Your task to perform on an android device: What's the price of the LG TV? Image 0: 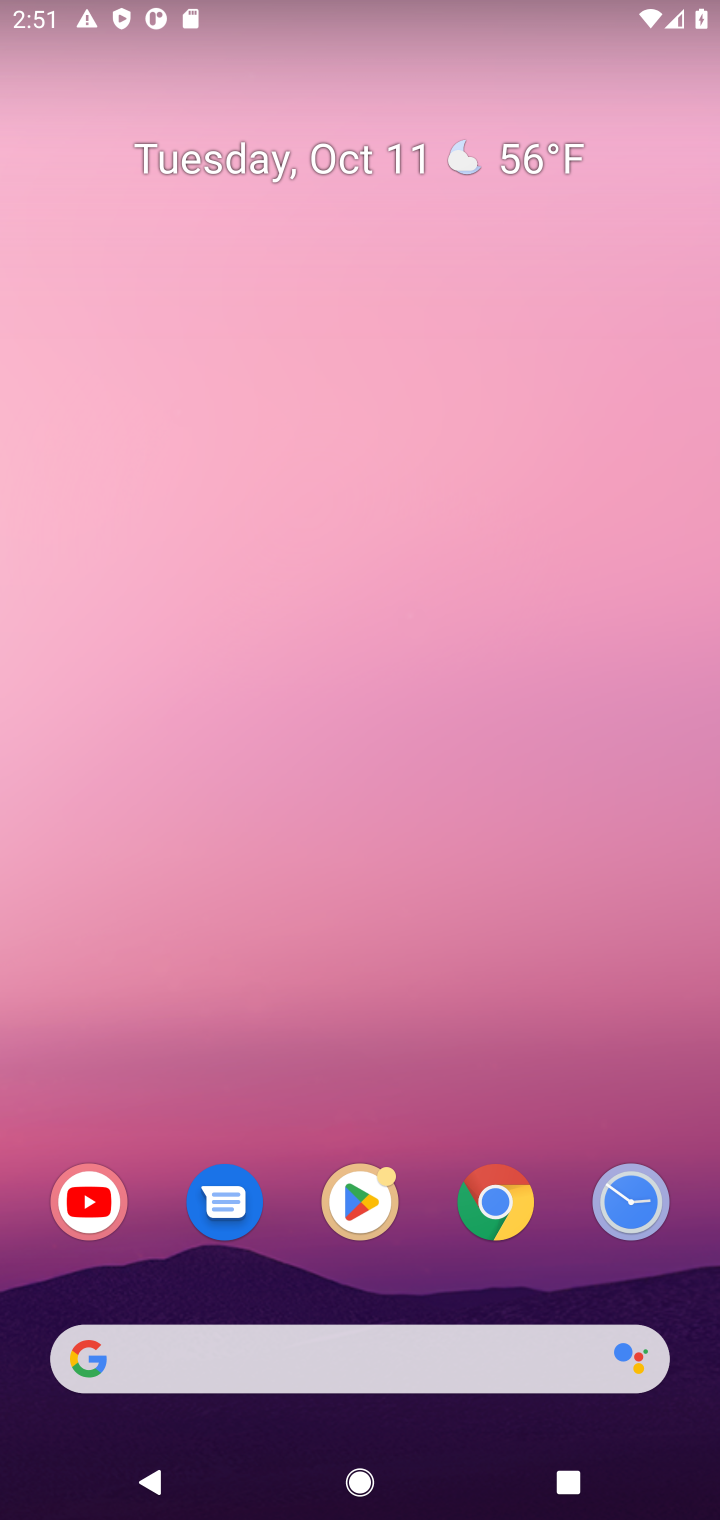
Step 0: click (506, 1204)
Your task to perform on an android device: What's the price of the LG TV? Image 1: 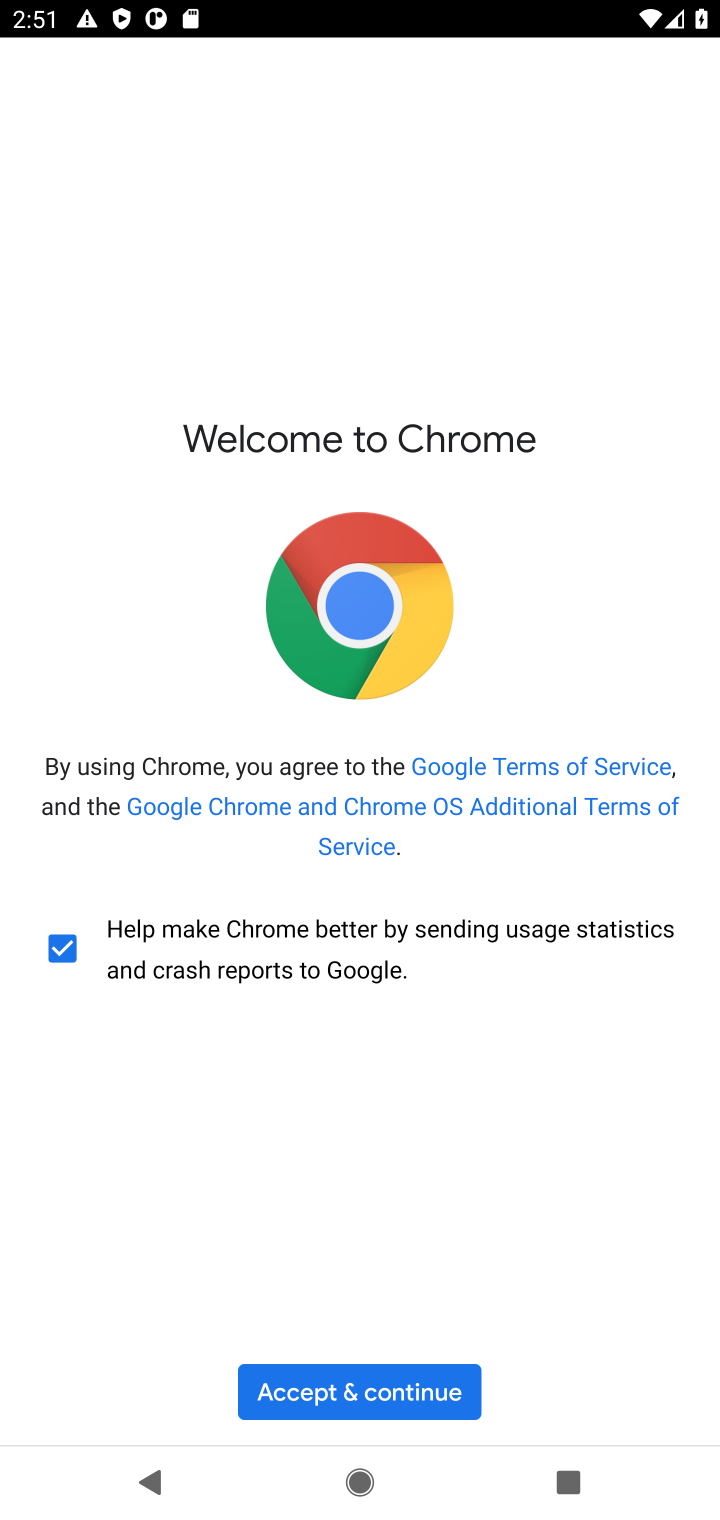
Step 1: click (389, 1369)
Your task to perform on an android device: What's the price of the LG TV? Image 2: 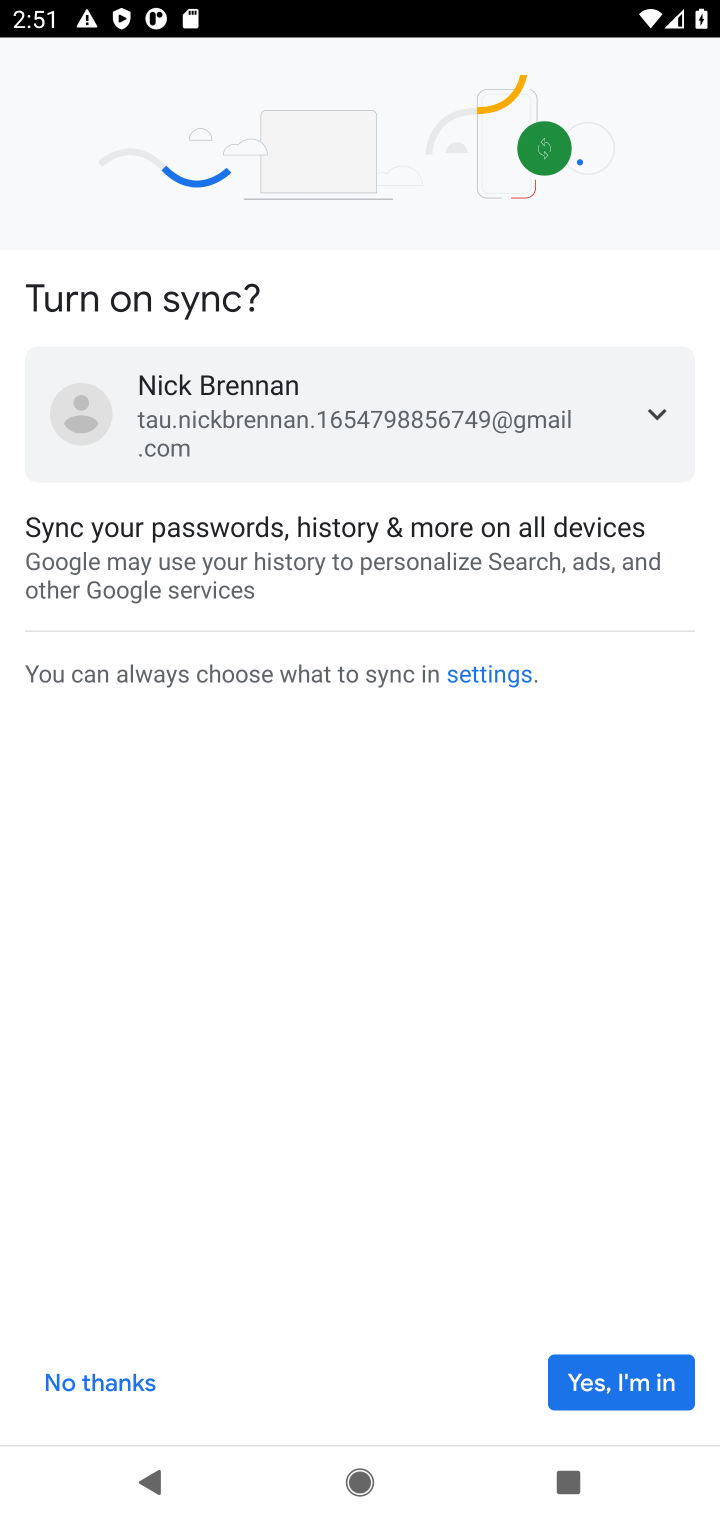
Step 2: click (589, 1368)
Your task to perform on an android device: What's the price of the LG TV? Image 3: 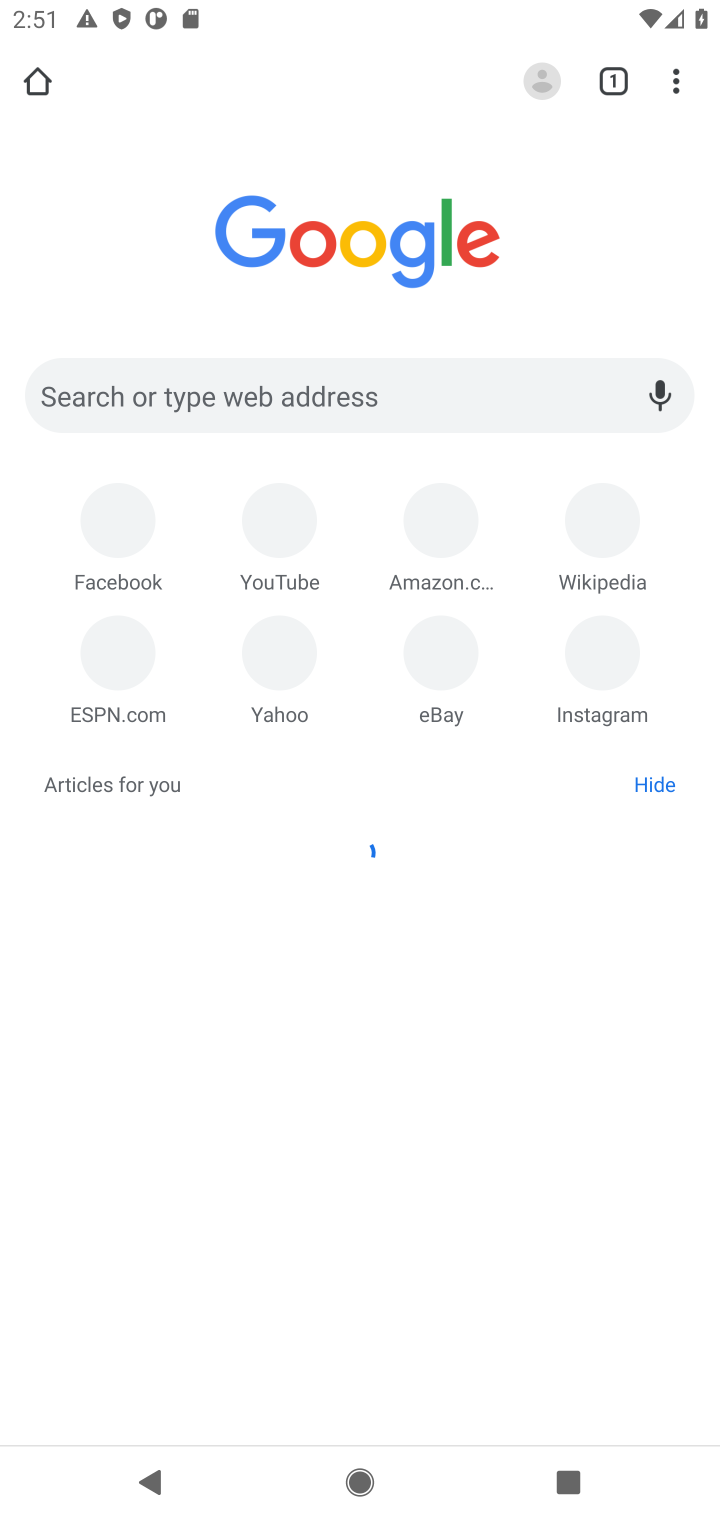
Step 3: click (364, 382)
Your task to perform on an android device: What's the price of the LG TV? Image 4: 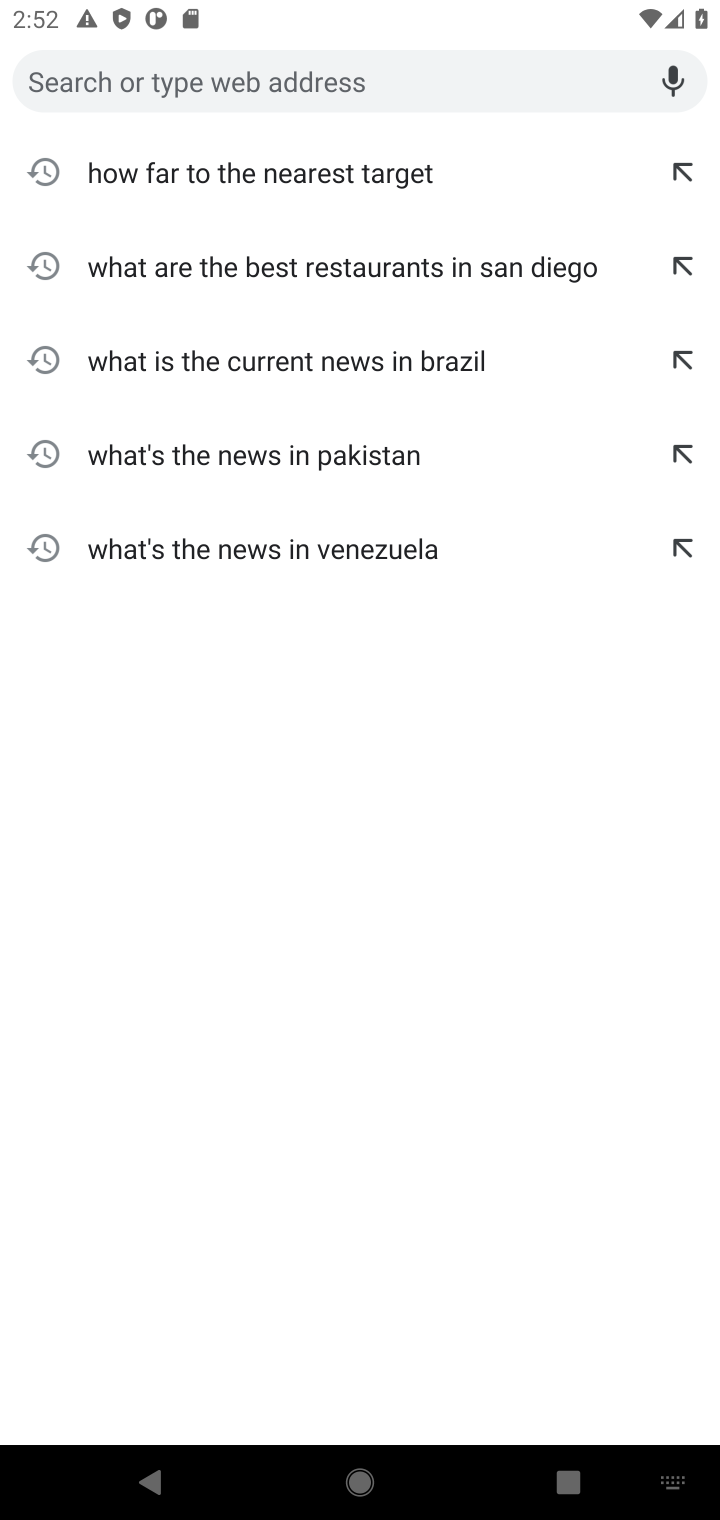
Step 4: type "What's the price of the LG TV?"
Your task to perform on an android device: What's the price of the LG TV? Image 5: 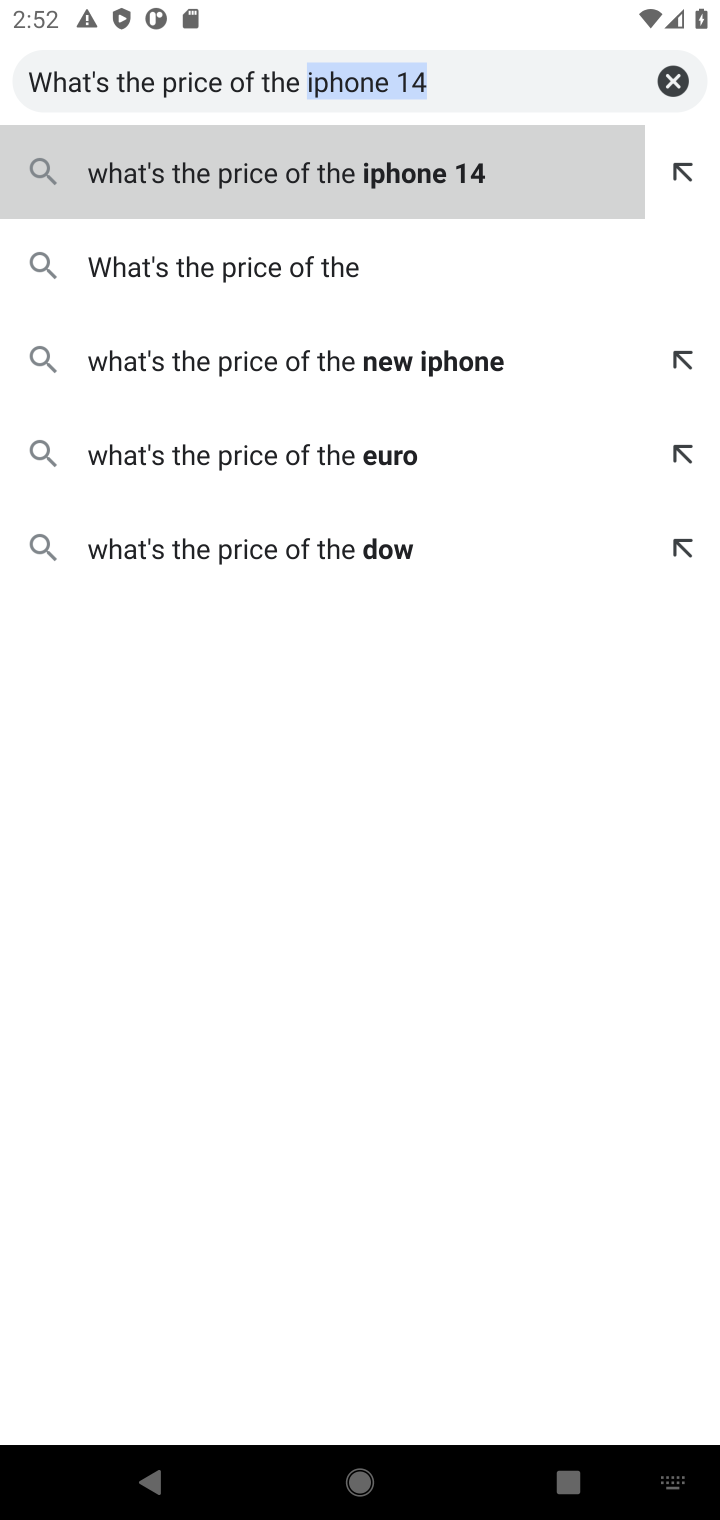
Step 5: type ""
Your task to perform on an android device: What's the price of the LG TV? Image 6: 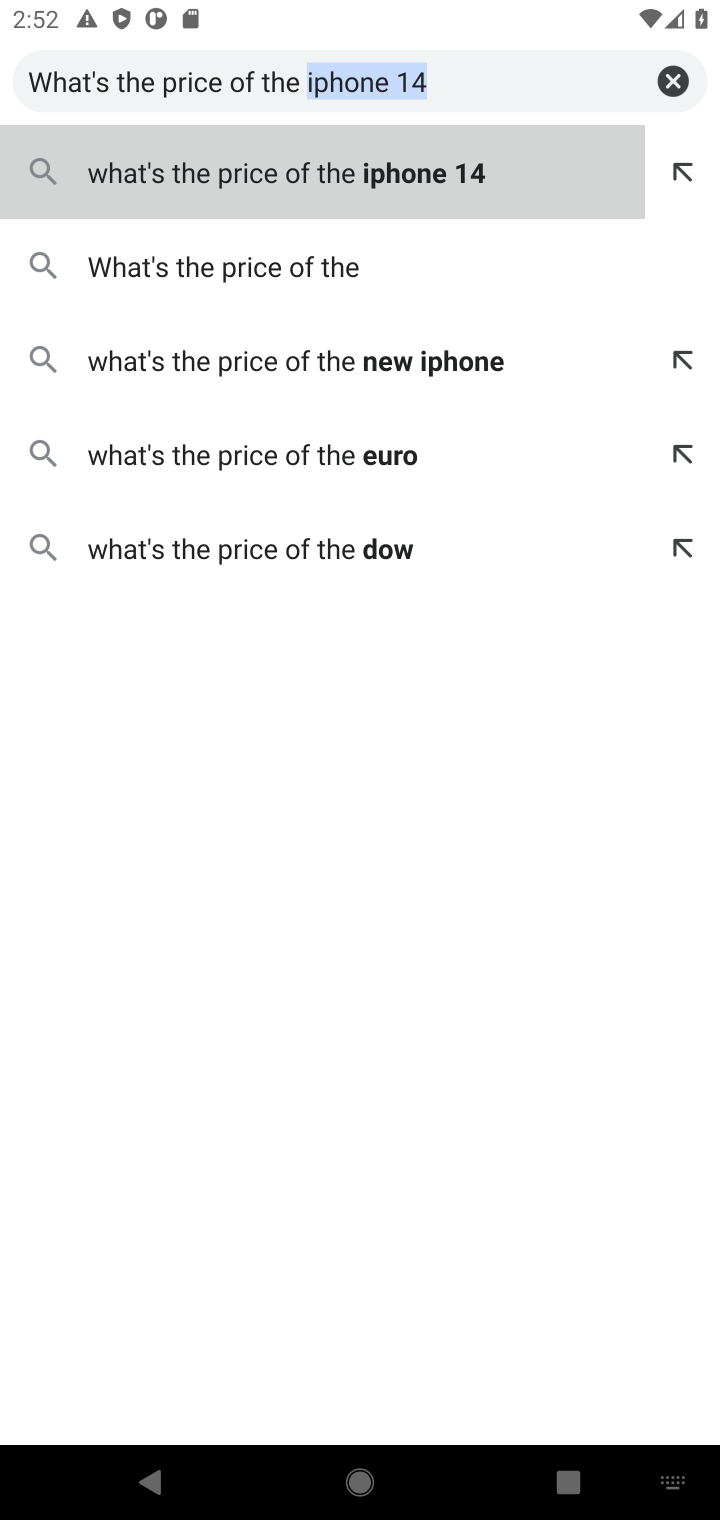
Step 6: click (671, 85)
Your task to perform on an android device: What's the price of the LG TV? Image 7: 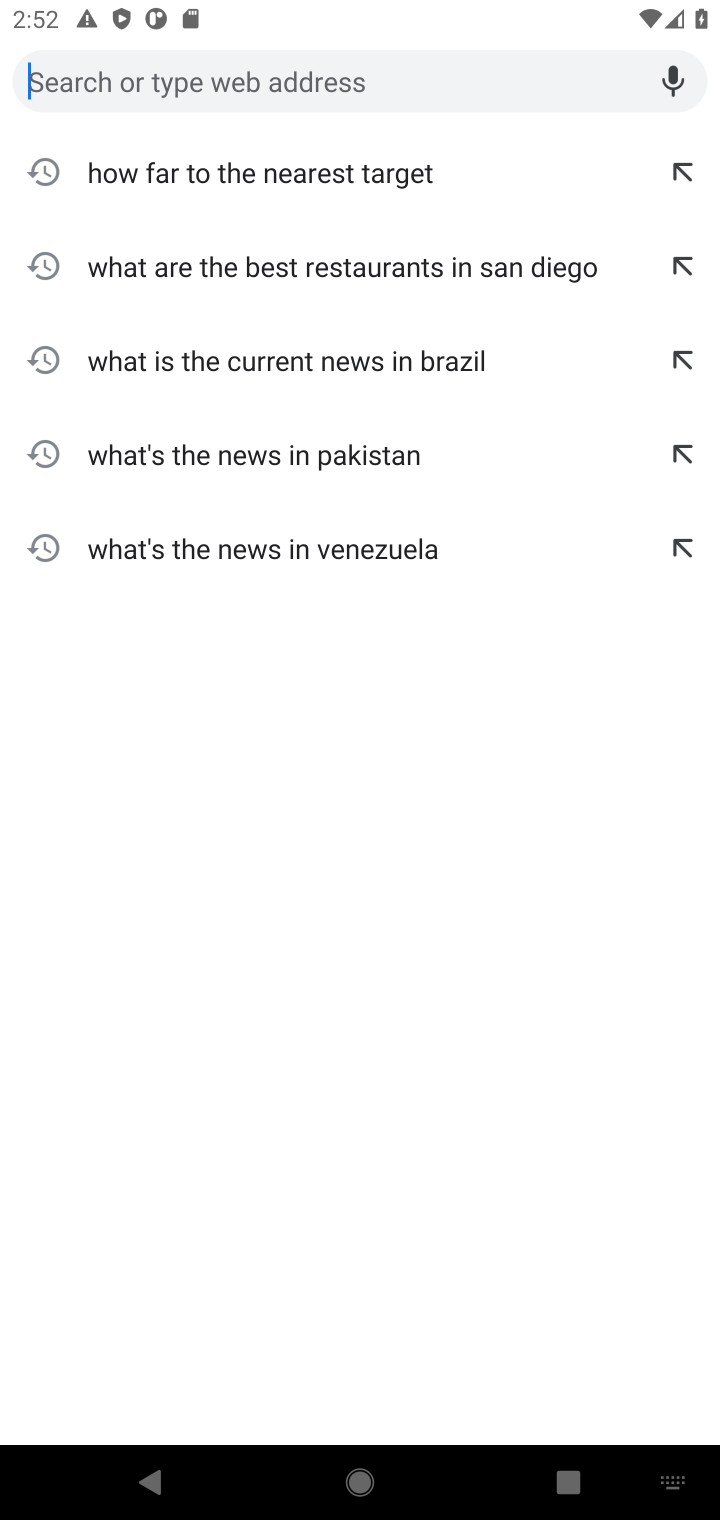
Step 7: type "What's the price of the LG TV?"
Your task to perform on an android device: What's the price of the LG TV? Image 8: 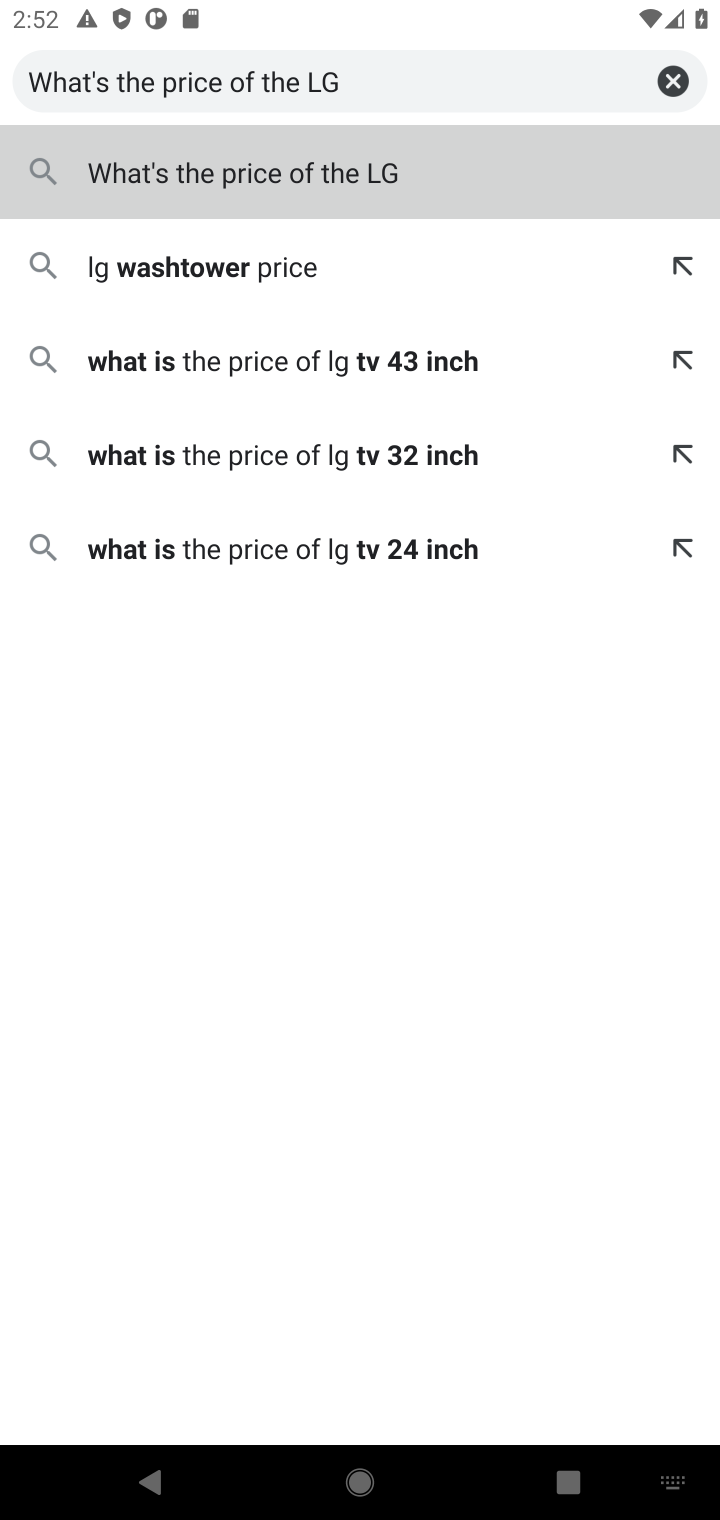
Step 8: type ""
Your task to perform on an android device: What's the price of the LG TV? Image 9: 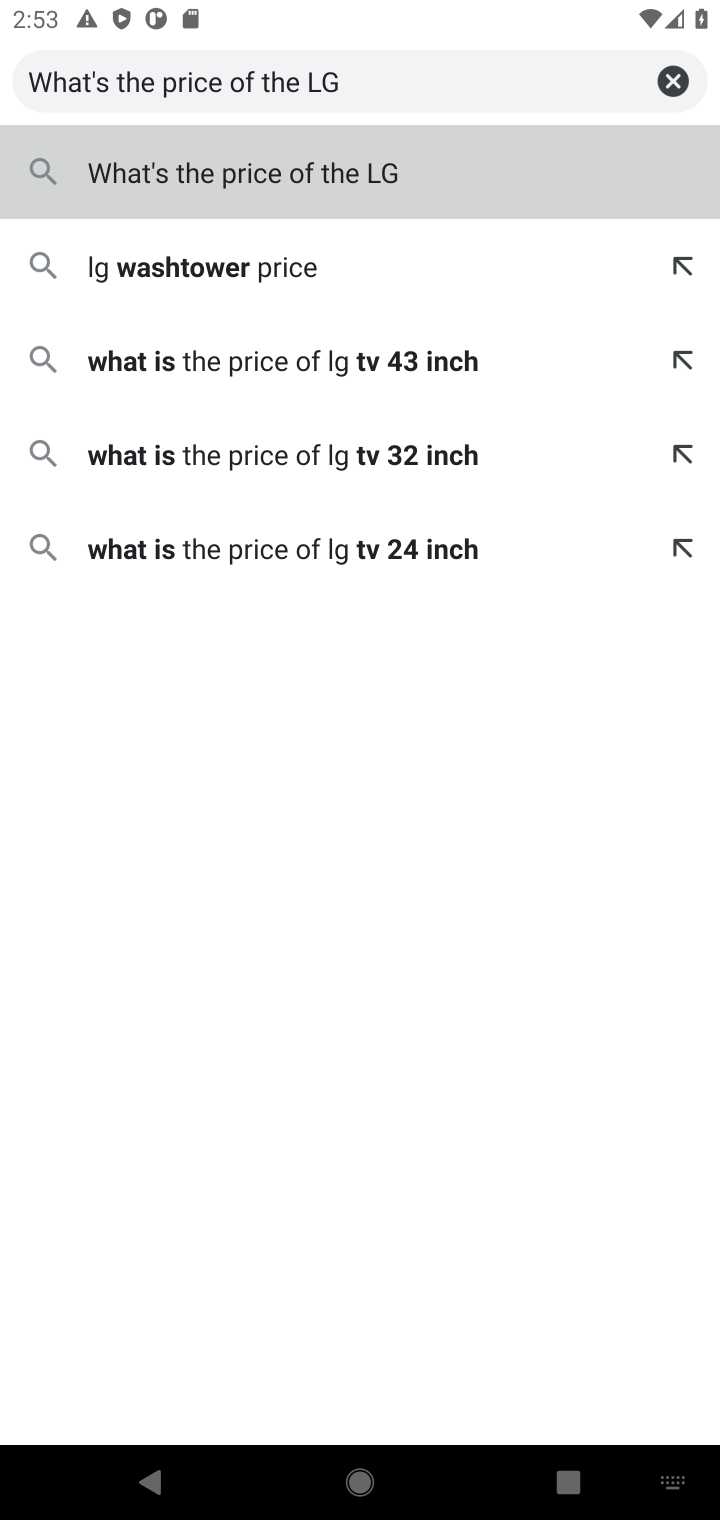
Step 9: press enter
Your task to perform on an android device: What's the price of the LG TV? Image 10: 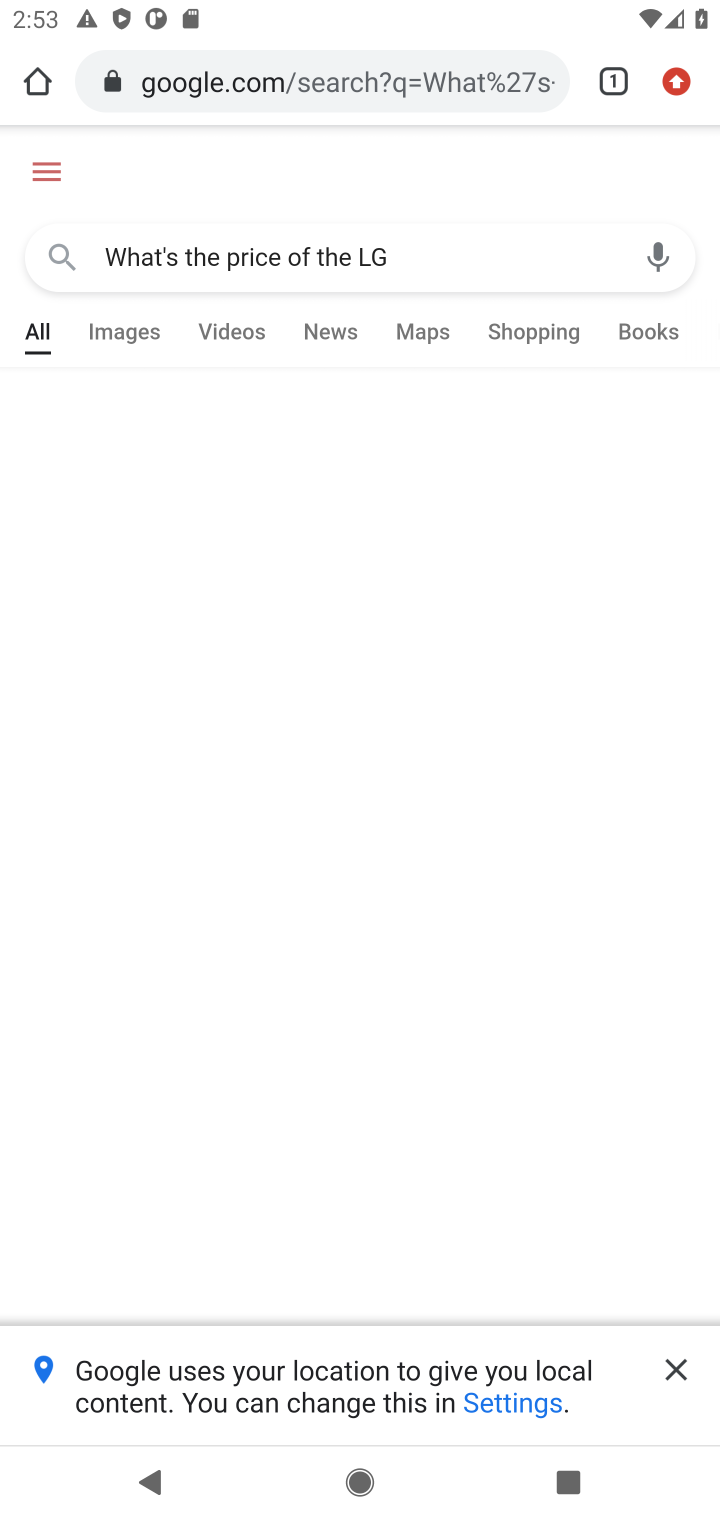
Step 10: click (687, 1375)
Your task to perform on an android device: What's the price of the LG TV? Image 11: 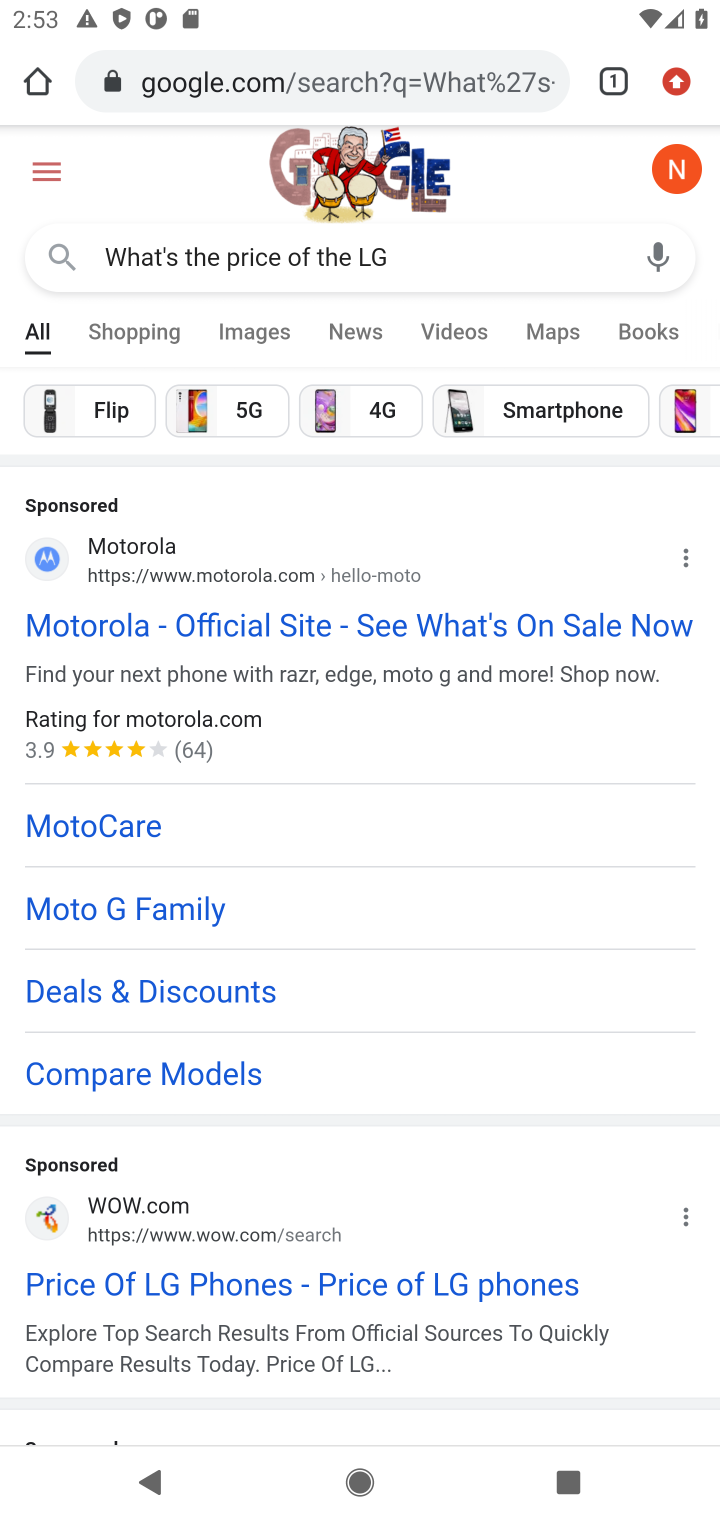
Step 11: drag from (249, 1186) to (308, 456)
Your task to perform on an android device: What's the price of the LG TV? Image 12: 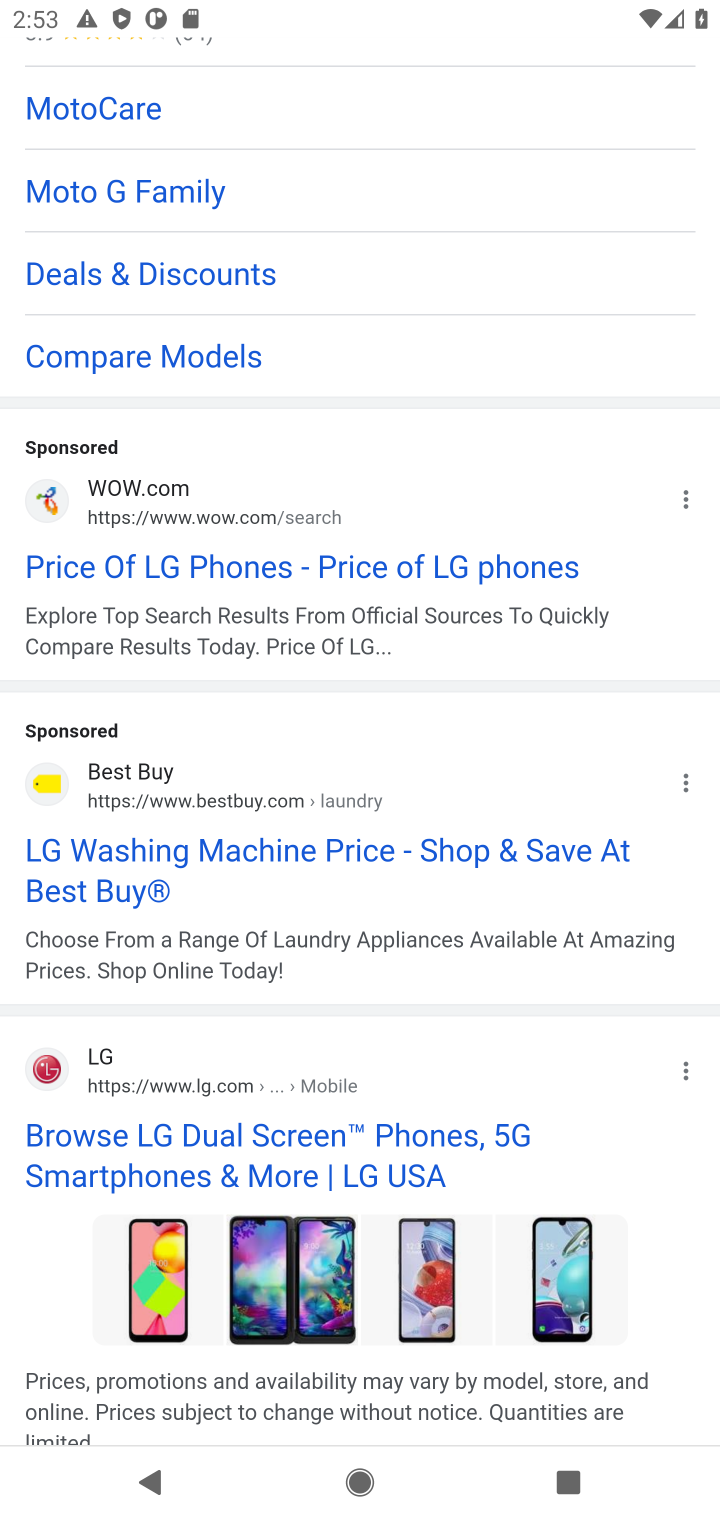
Step 12: drag from (413, 844) to (416, 457)
Your task to perform on an android device: What's the price of the LG TV? Image 13: 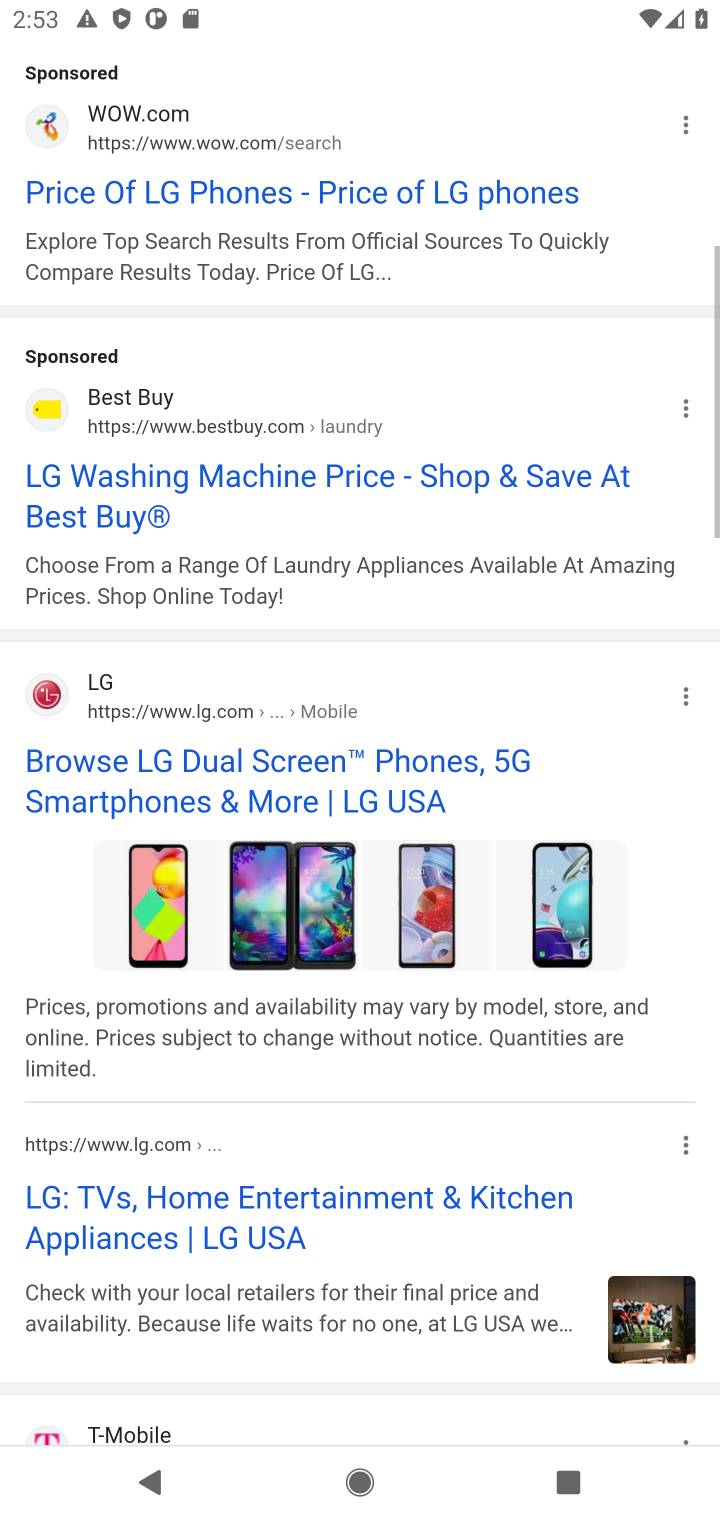
Step 13: drag from (398, 156) to (474, 1158)
Your task to perform on an android device: What's the price of the LG TV? Image 14: 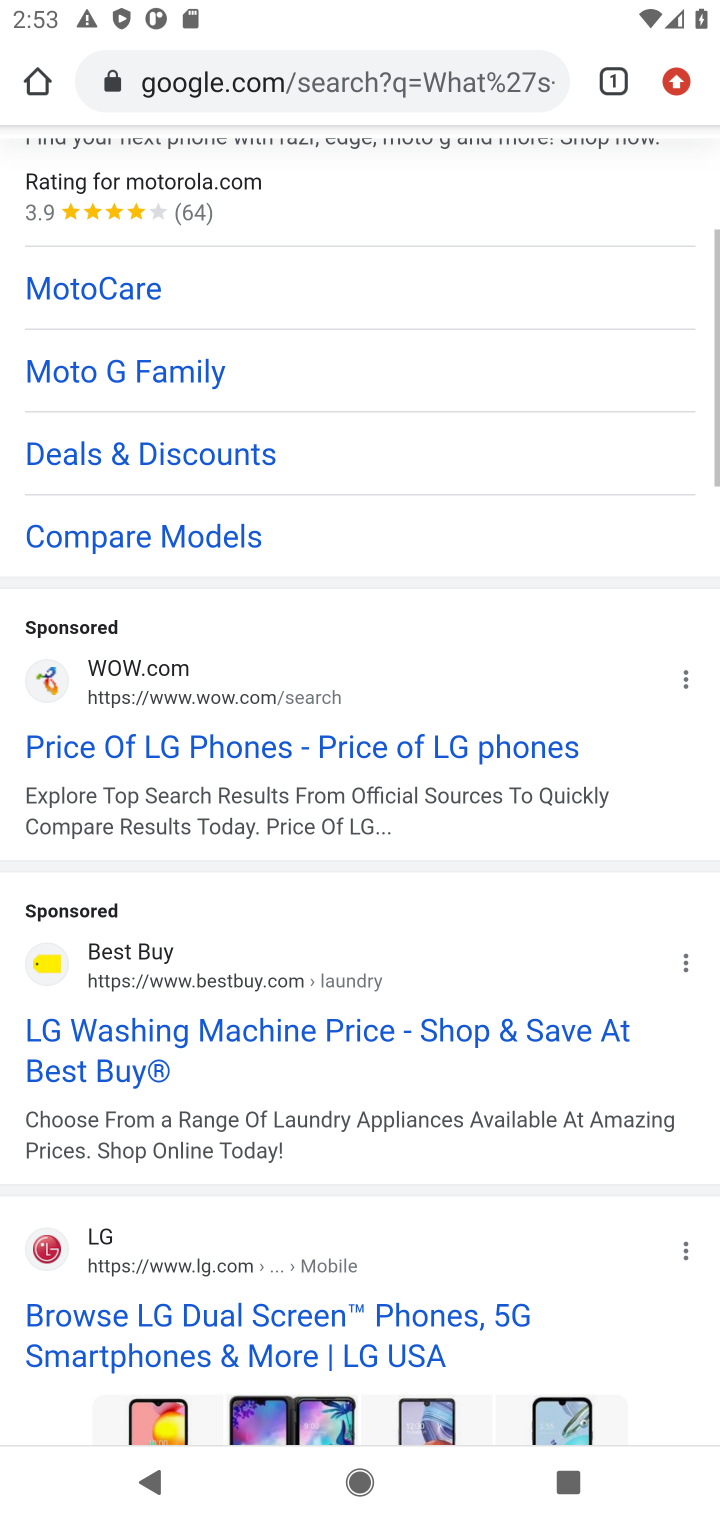
Step 14: click (352, 1220)
Your task to perform on an android device: What's the price of the LG TV? Image 15: 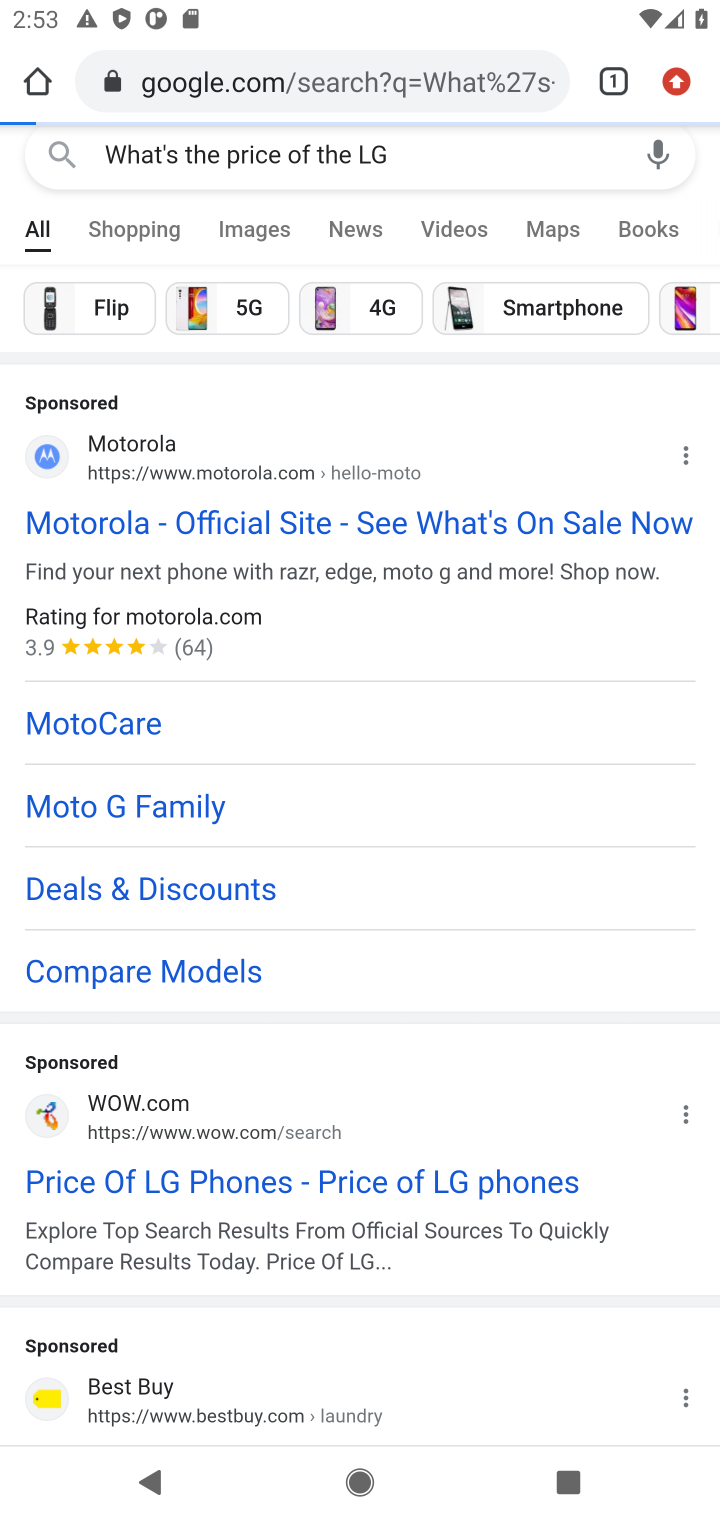
Step 15: drag from (294, 1285) to (387, 487)
Your task to perform on an android device: What's the price of the LG TV? Image 16: 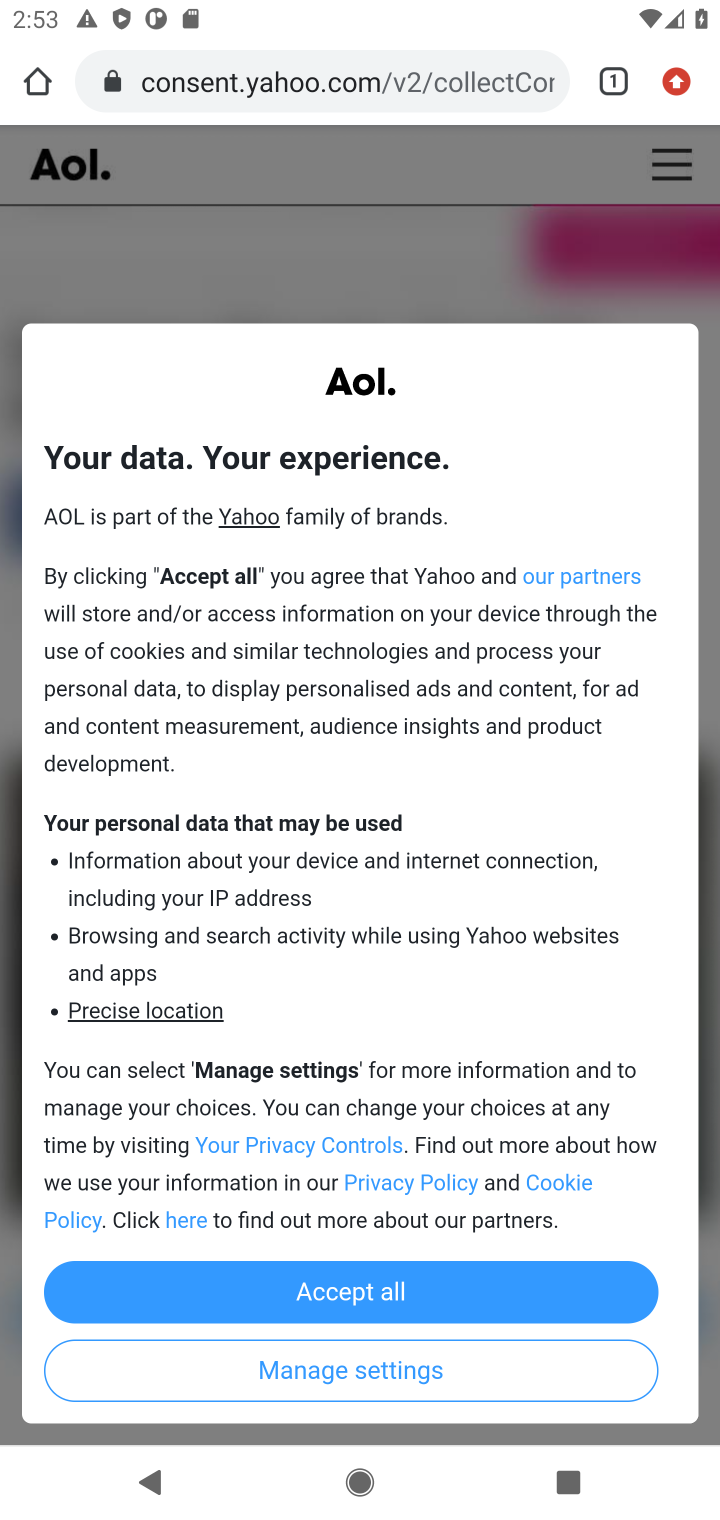
Step 16: press back button
Your task to perform on an android device: What's the price of the LG TV? Image 17: 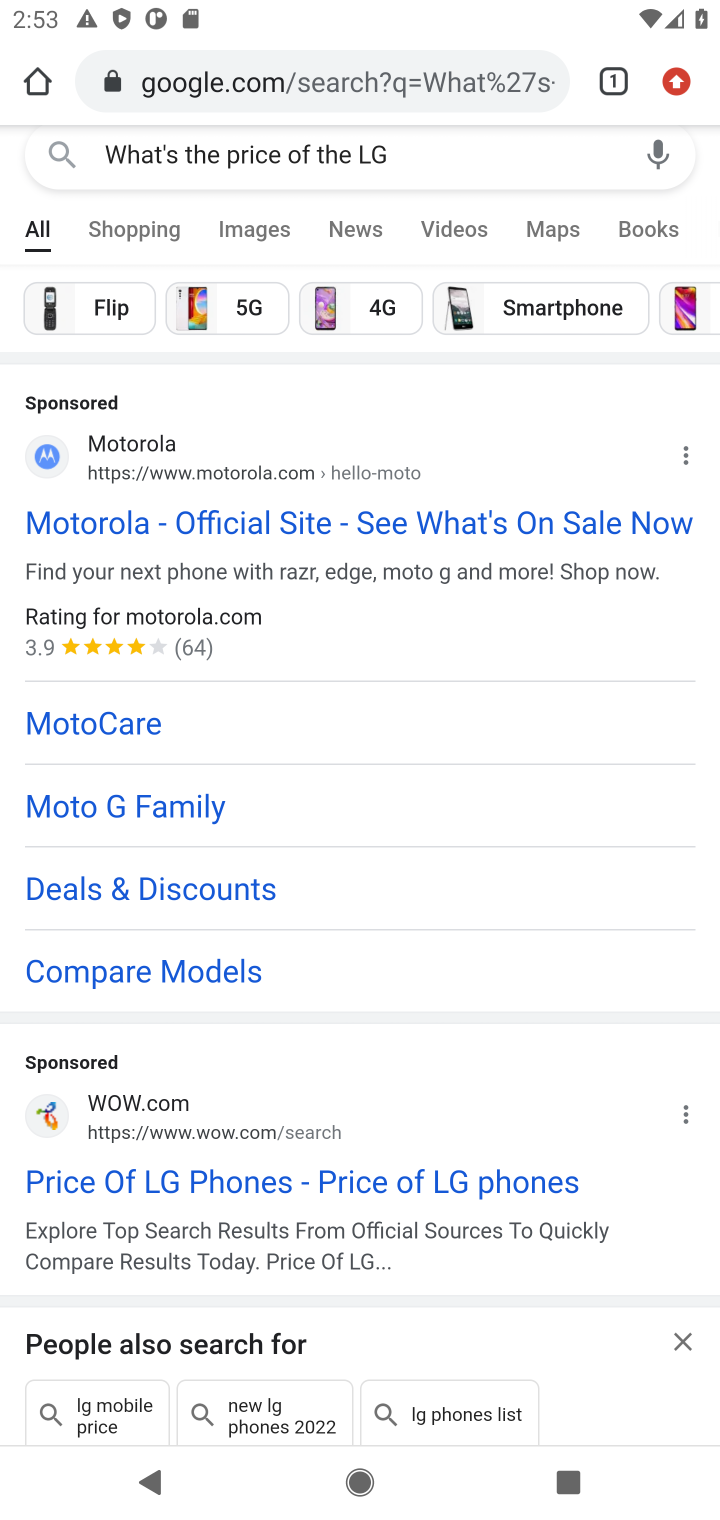
Step 17: drag from (478, 1219) to (499, 533)
Your task to perform on an android device: What's the price of the LG TV? Image 18: 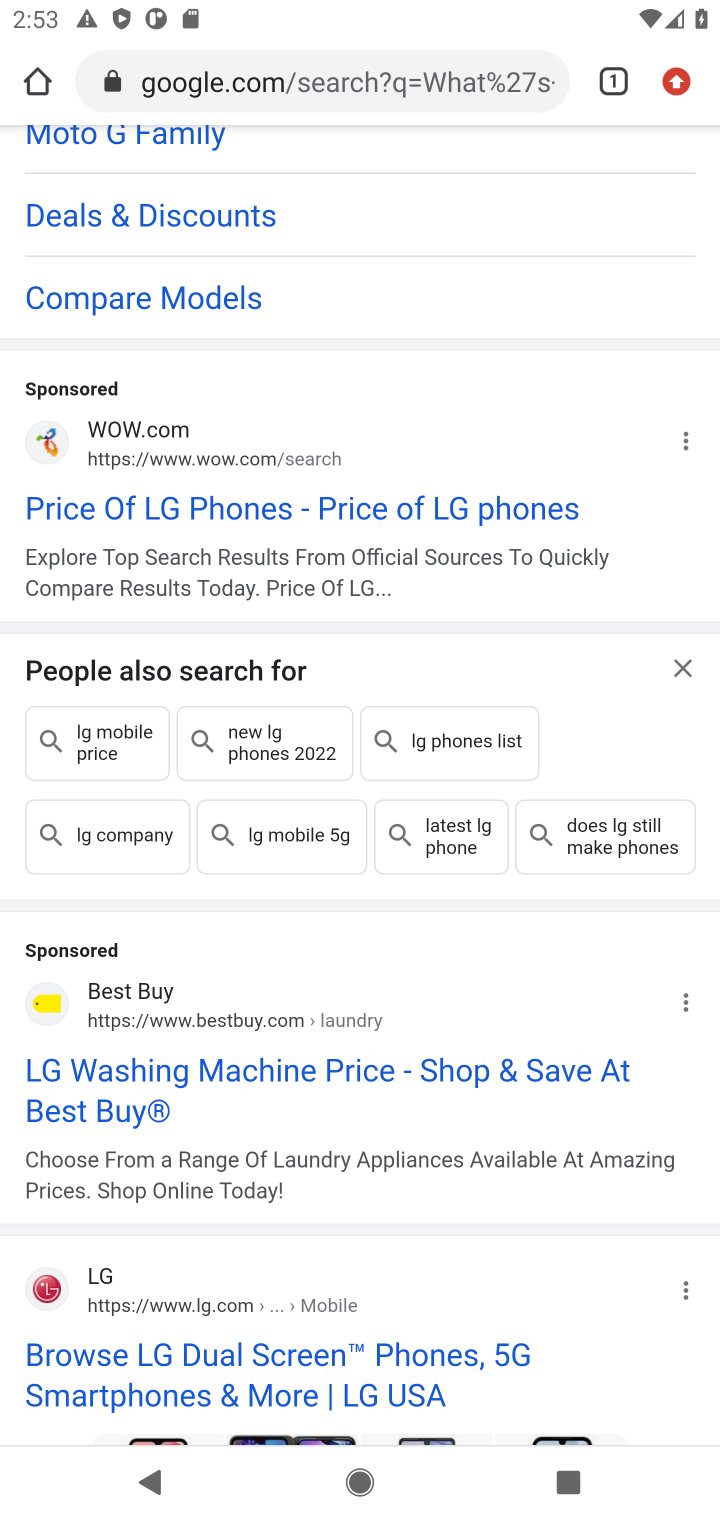
Step 18: drag from (542, 1106) to (513, 328)
Your task to perform on an android device: What's the price of the LG TV? Image 19: 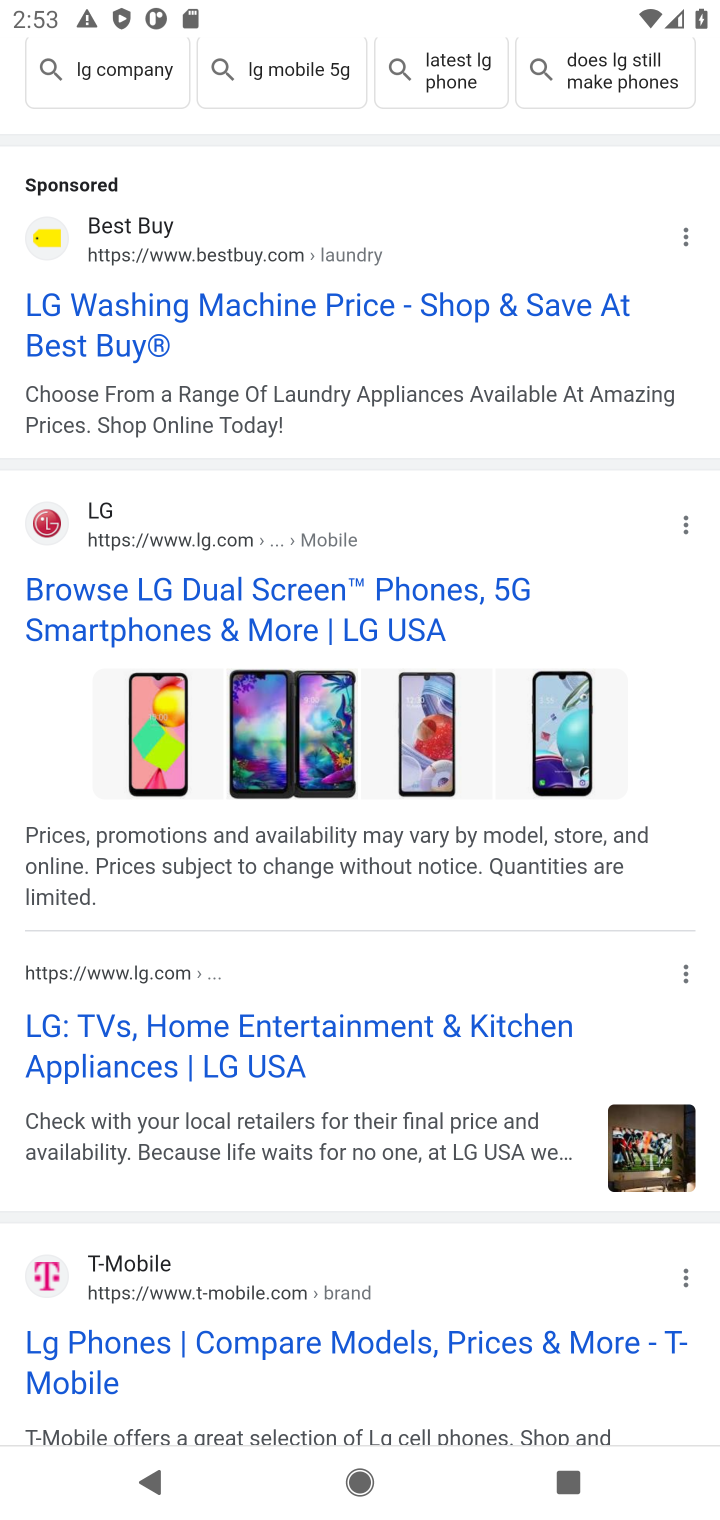
Step 19: click (283, 1021)
Your task to perform on an android device: What's the price of the LG TV? Image 20: 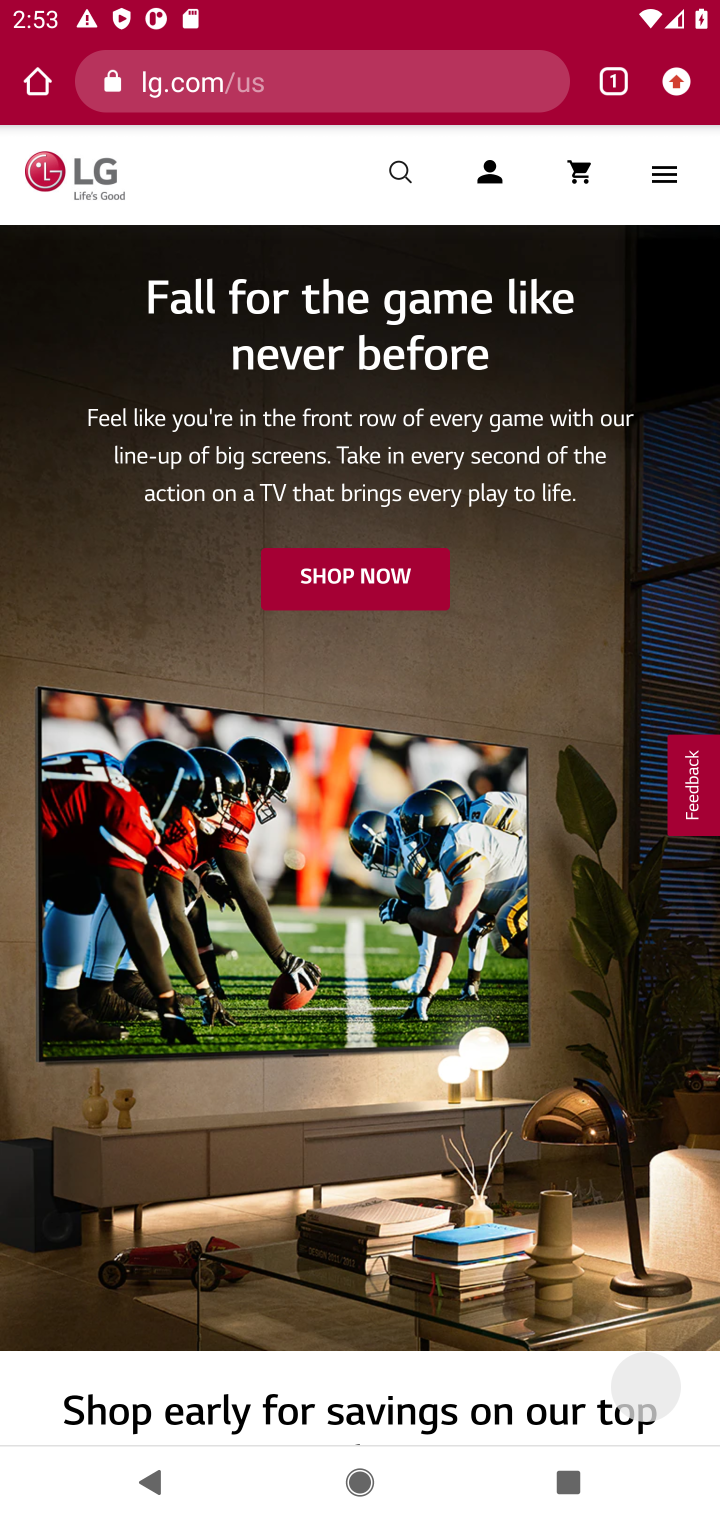
Step 20: drag from (351, 608) to (372, 252)
Your task to perform on an android device: What's the price of the LG TV? Image 21: 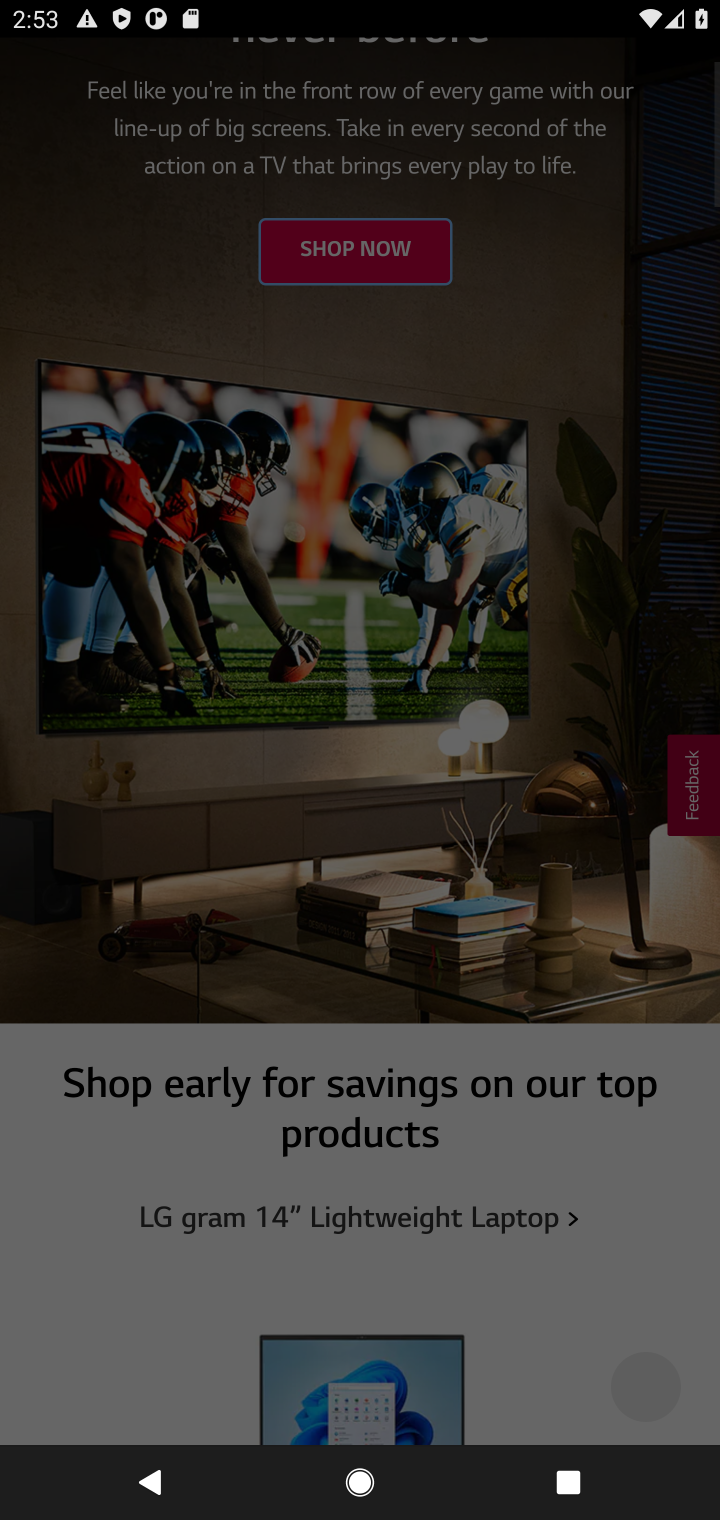
Step 21: drag from (416, 1183) to (396, 445)
Your task to perform on an android device: What's the price of the LG TV? Image 22: 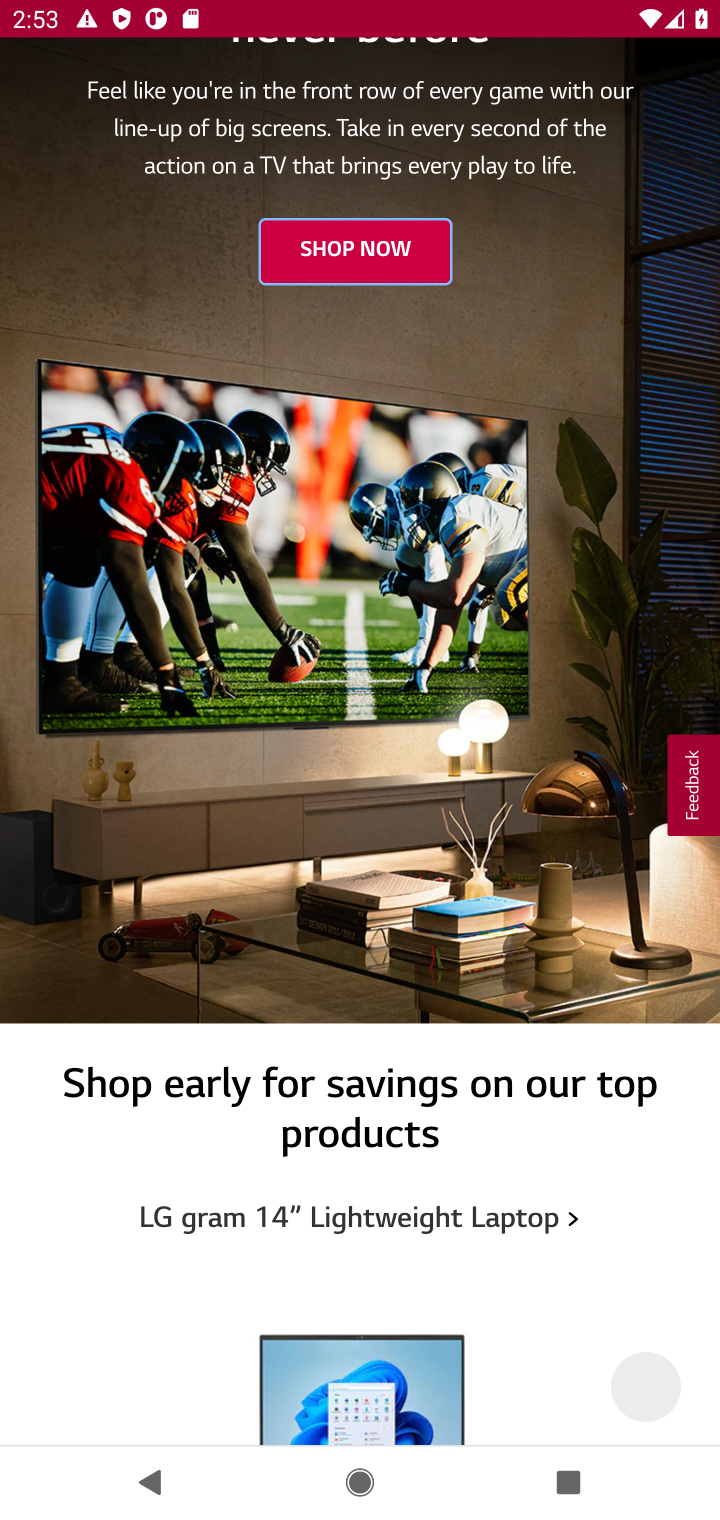
Step 22: drag from (437, 917) to (430, 449)
Your task to perform on an android device: What's the price of the LG TV? Image 23: 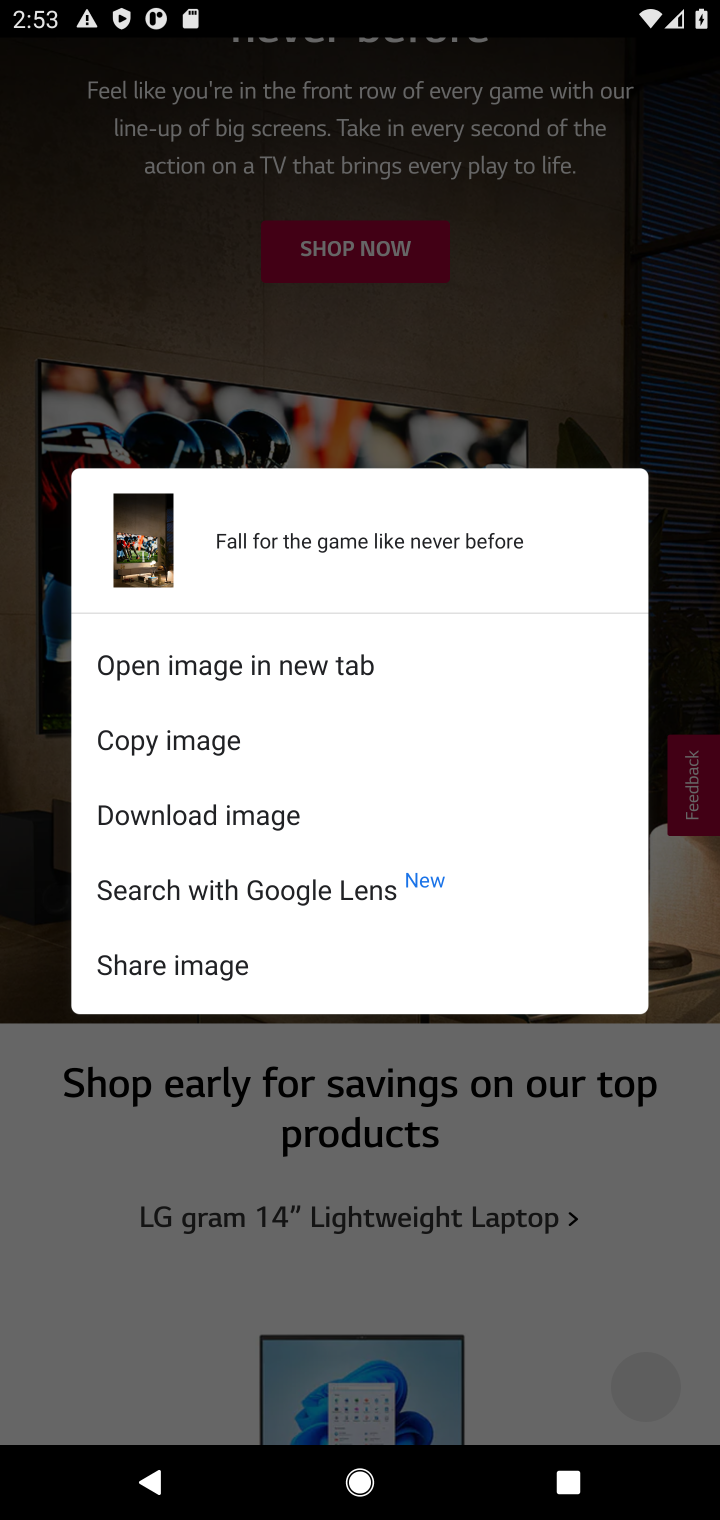
Step 23: click (450, 1140)
Your task to perform on an android device: What's the price of the LG TV? Image 24: 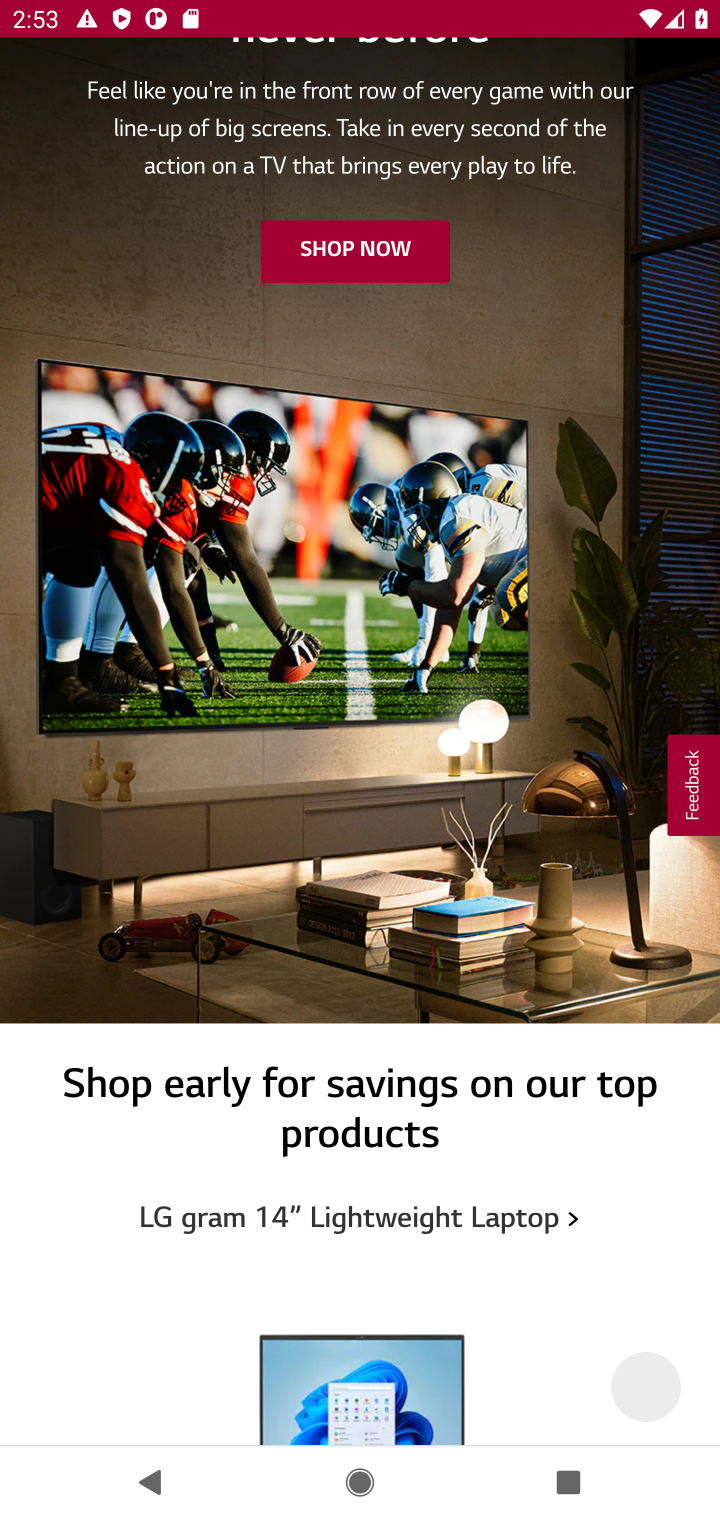
Step 24: drag from (482, 670) to (429, 264)
Your task to perform on an android device: What's the price of the LG TV? Image 25: 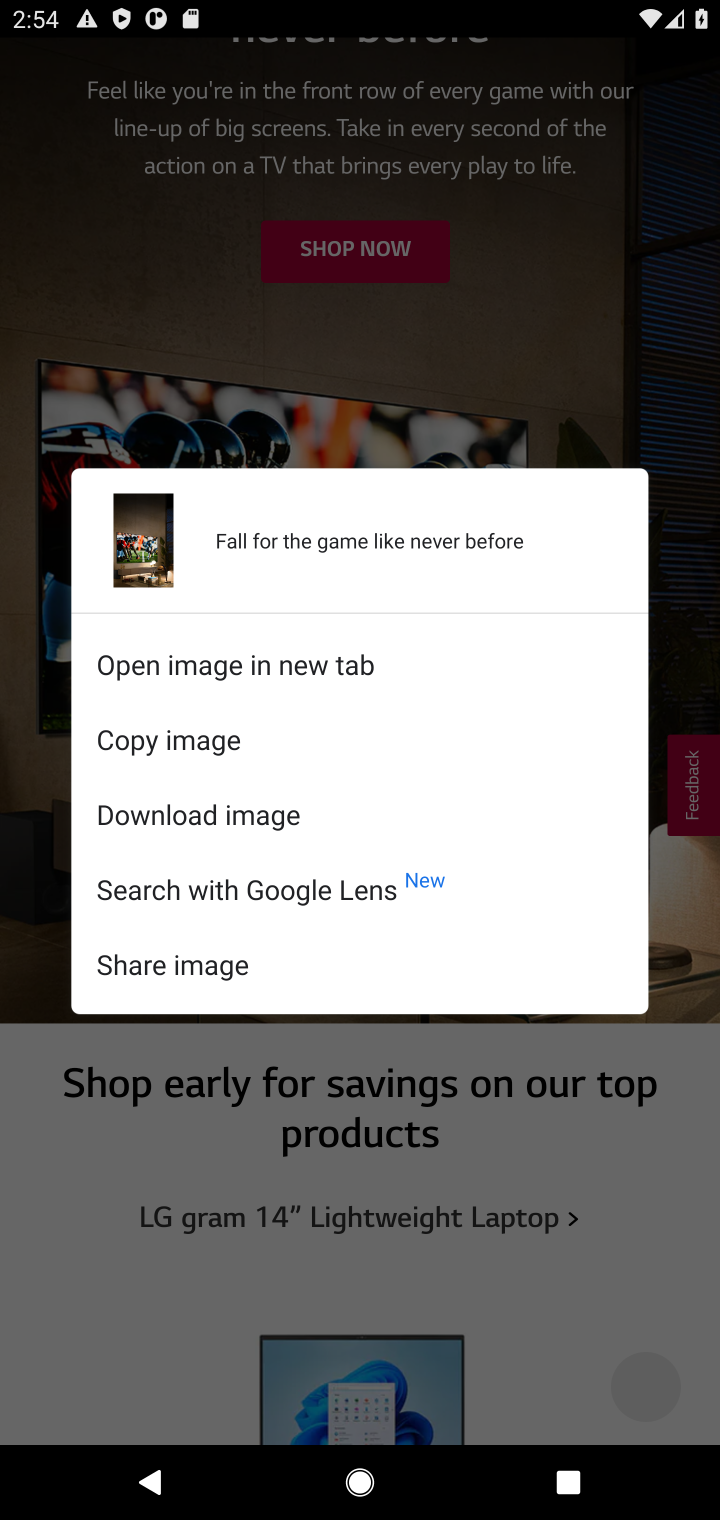
Step 25: click (554, 1122)
Your task to perform on an android device: What's the price of the LG TV? Image 26: 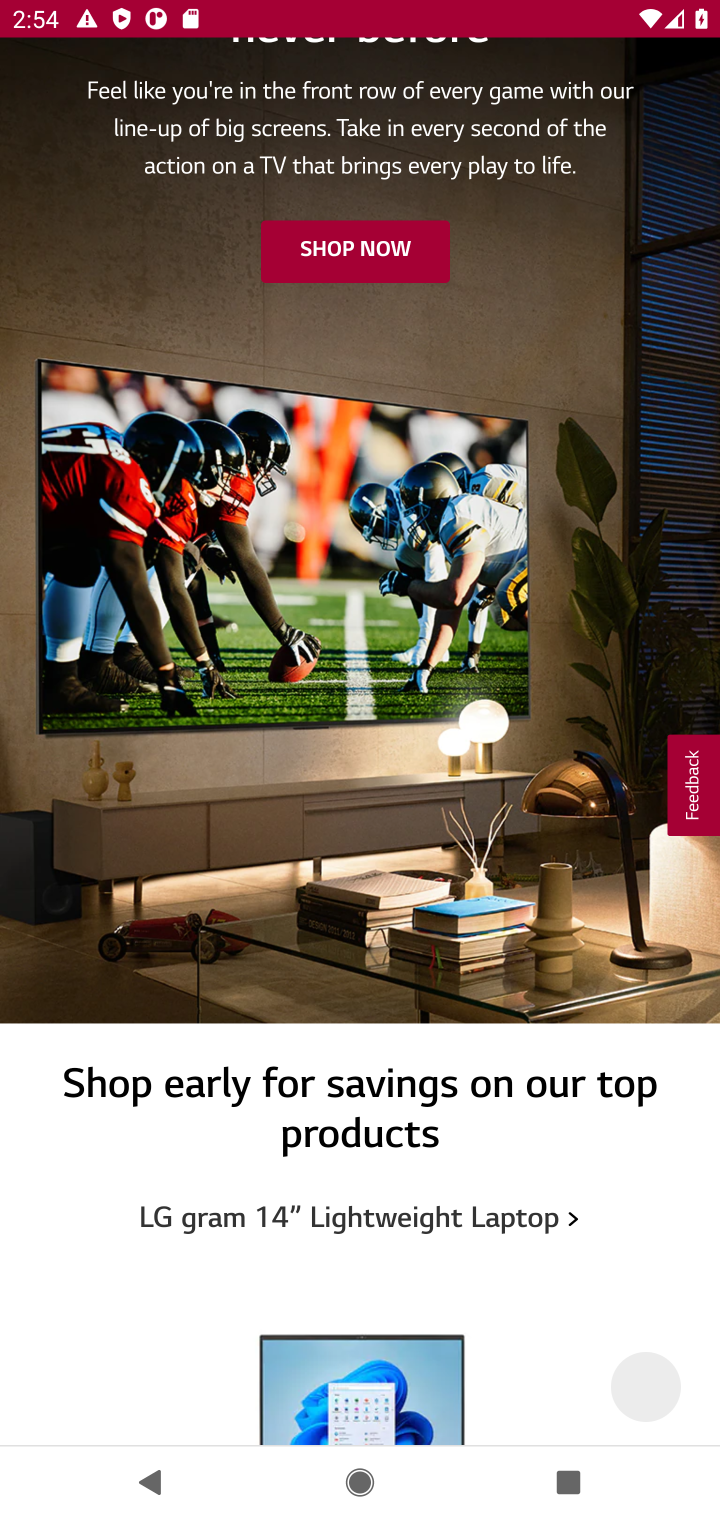
Step 26: drag from (145, 562) to (321, 28)
Your task to perform on an android device: What's the price of the LG TV? Image 27: 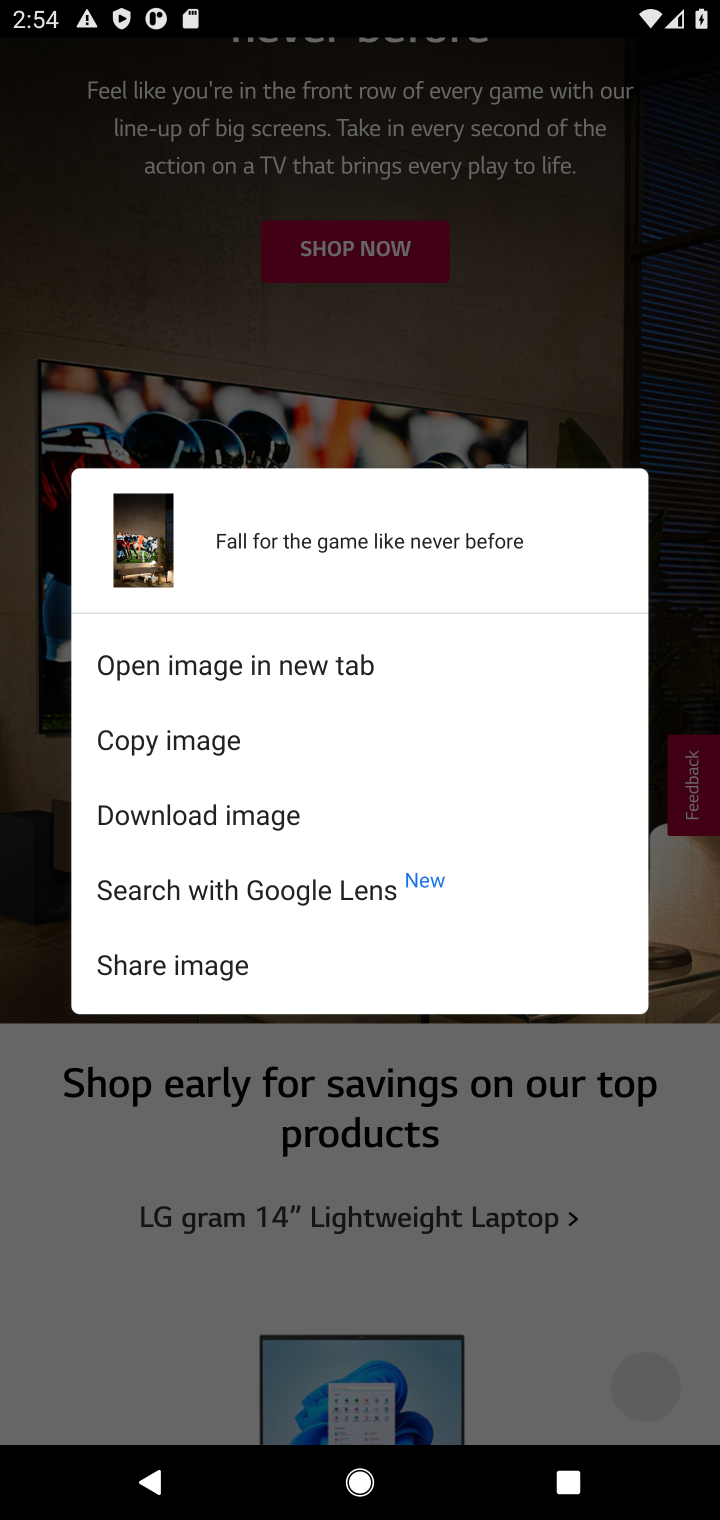
Step 27: click (595, 1114)
Your task to perform on an android device: What's the price of the LG TV? Image 28: 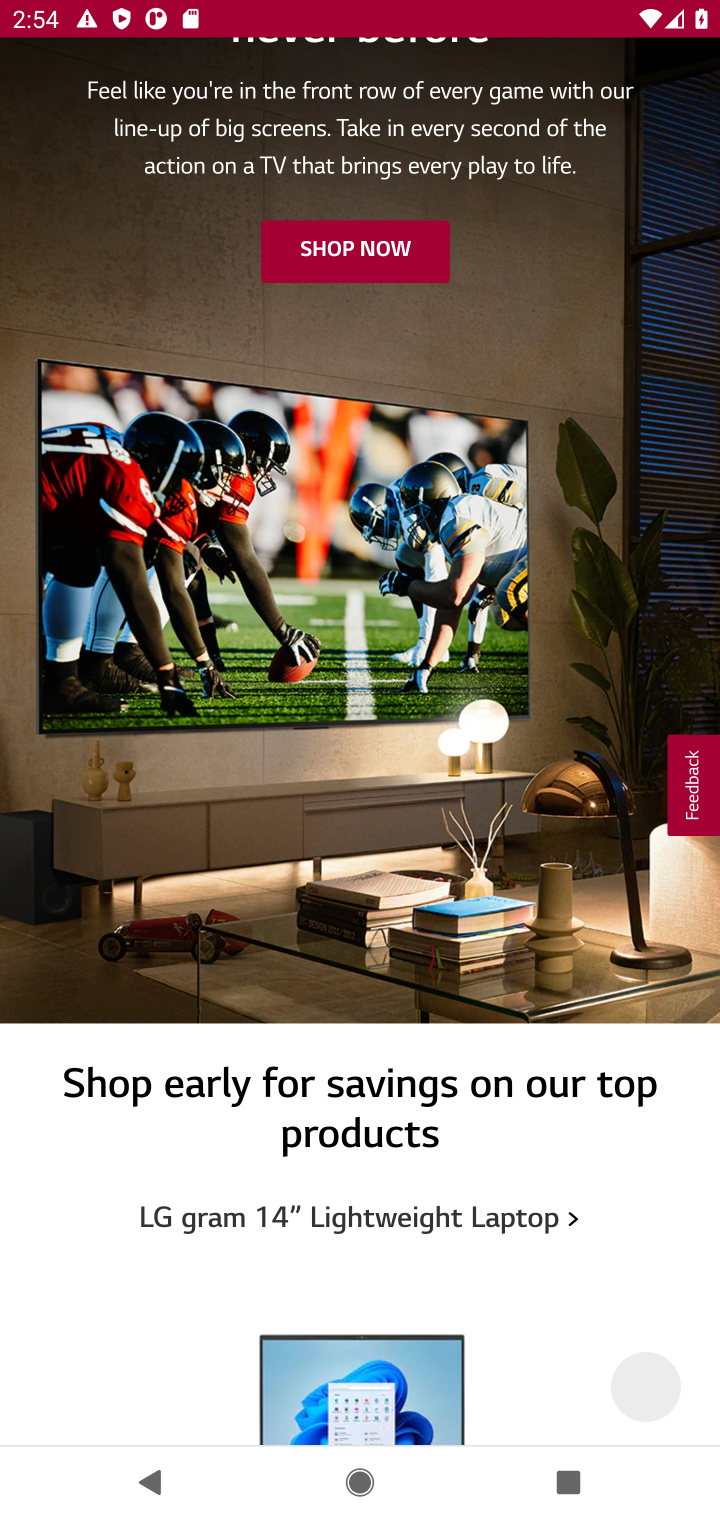
Step 28: task complete